Your task to perform on an android device: open app "Google Play Games" (install if not already installed) Image 0: 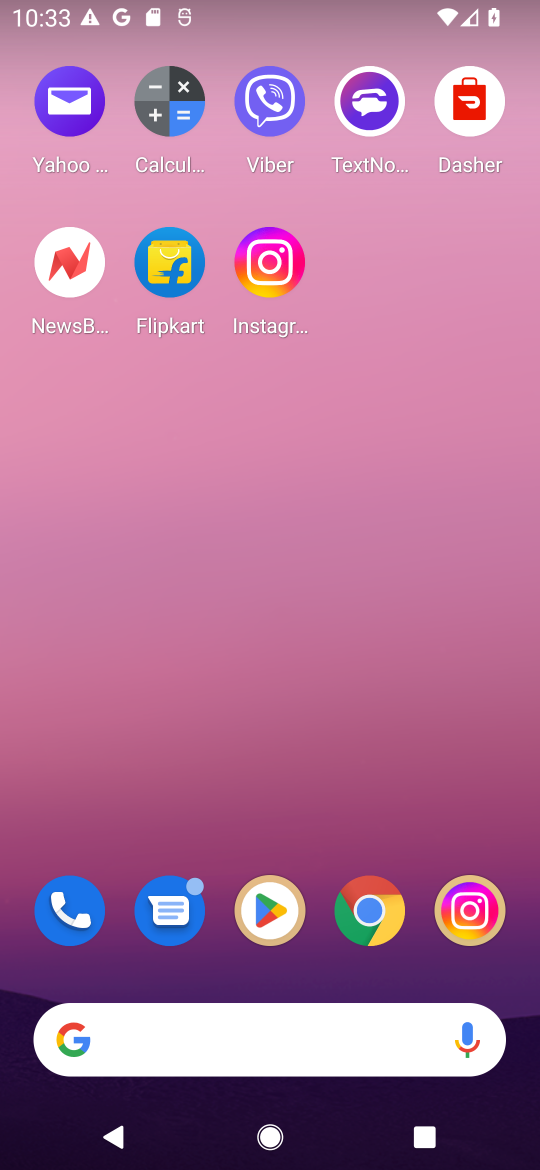
Step 0: click (262, 886)
Your task to perform on an android device: open app "Google Play Games" (install if not already installed) Image 1: 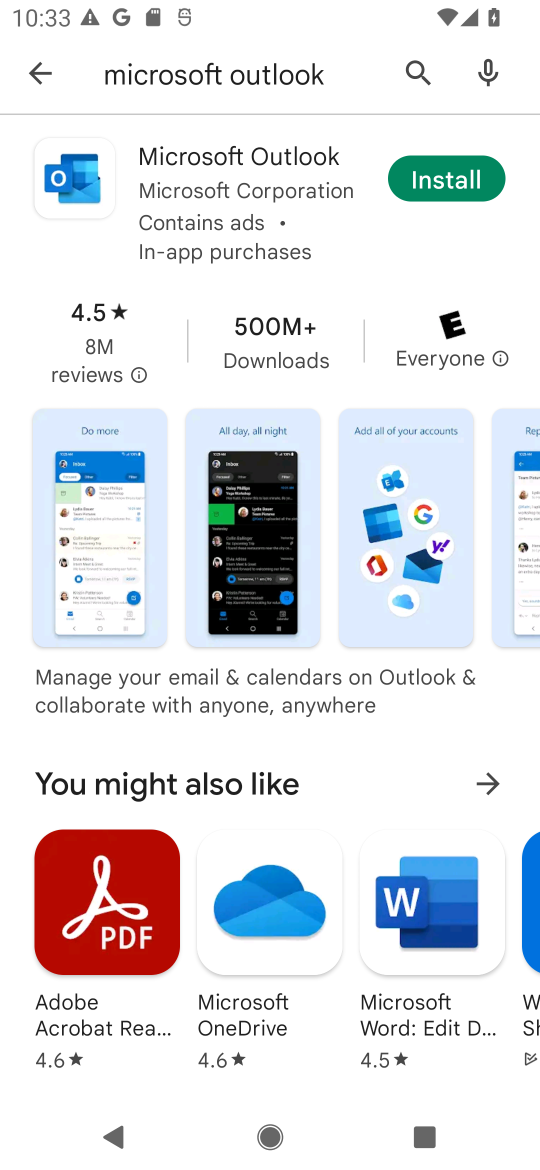
Step 1: click (431, 58)
Your task to perform on an android device: open app "Google Play Games" (install if not already installed) Image 2: 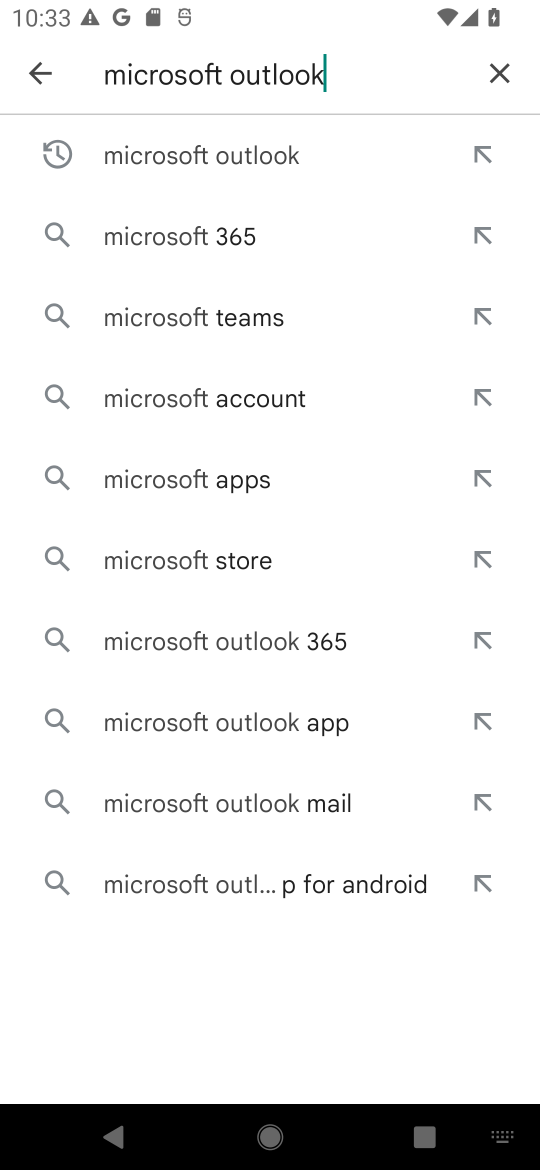
Step 2: click (512, 78)
Your task to perform on an android device: open app "Google Play Games" (install if not already installed) Image 3: 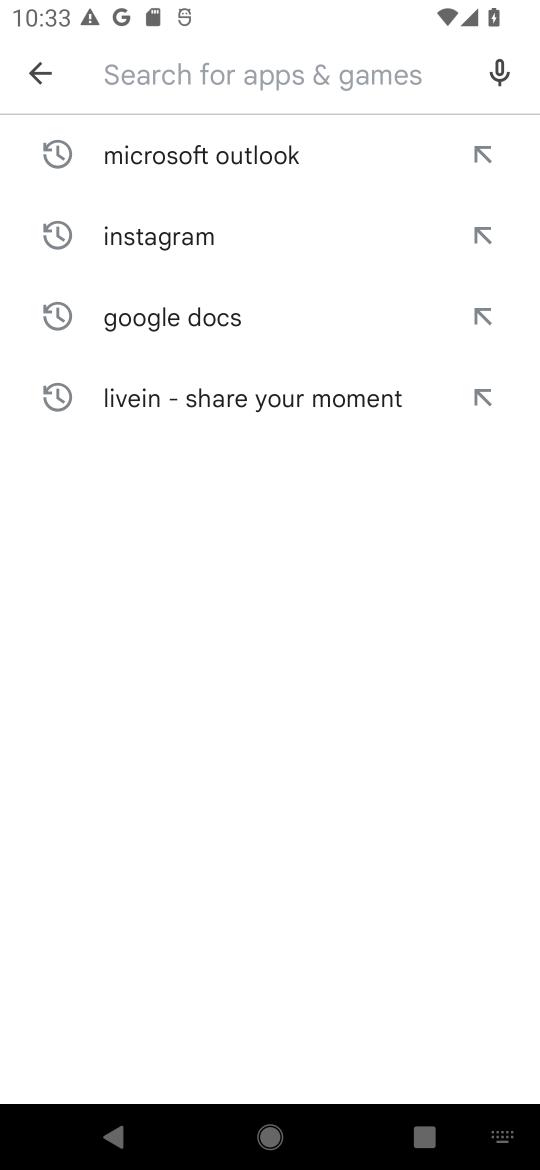
Step 3: type "Google Play Games"
Your task to perform on an android device: open app "Google Play Games" (install if not already installed) Image 4: 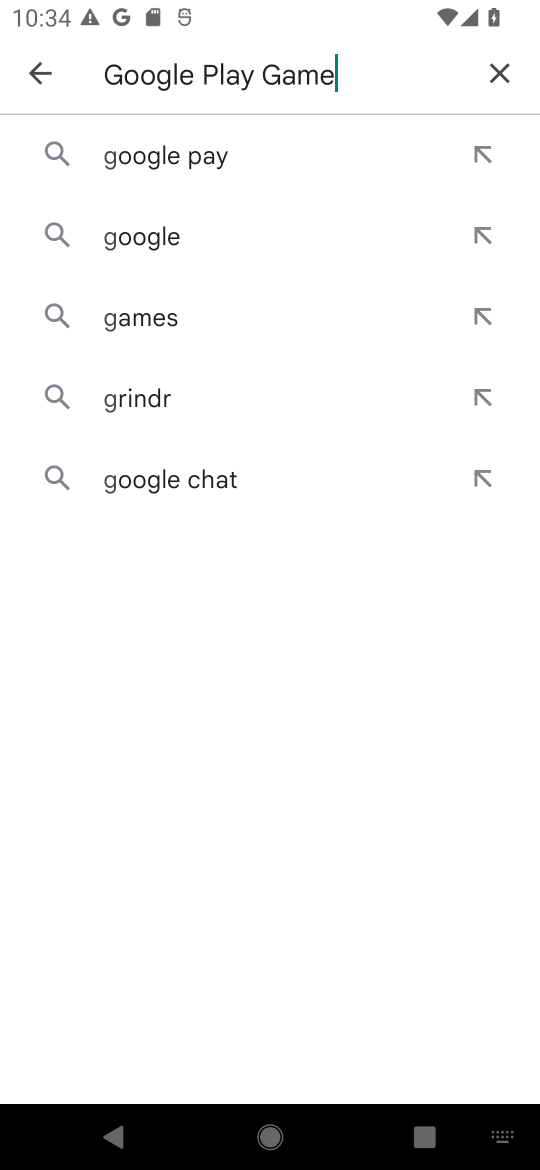
Step 4: type ""
Your task to perform on an android device: open app "Google Play Games" (install if not already installed) Image 5: 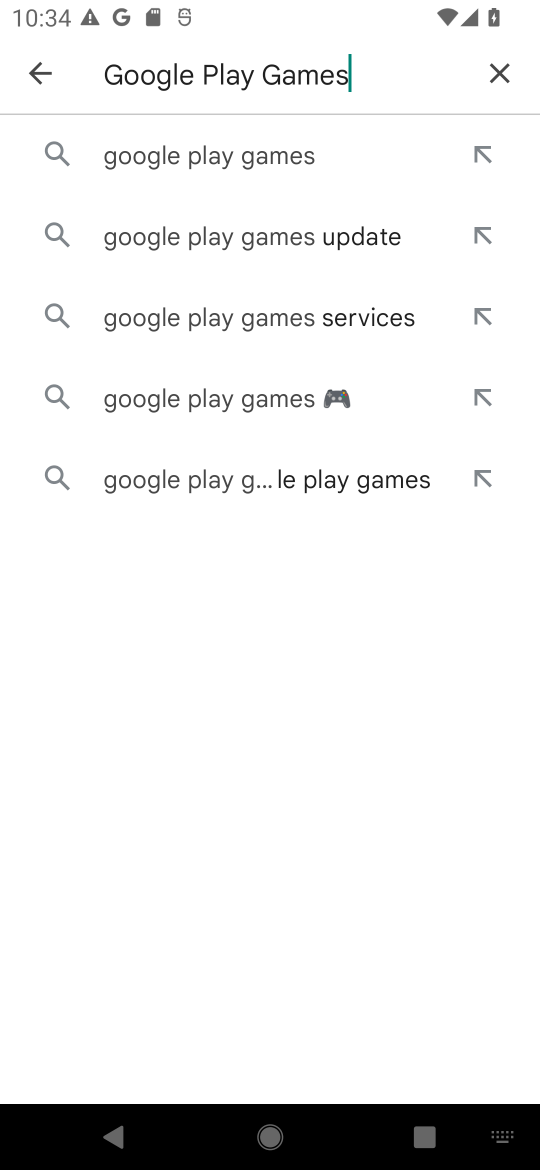
Step 5: click (170, 169)
Your task to perform on an android device: open app "Google Play Games" (install if not already installed) Image 6: 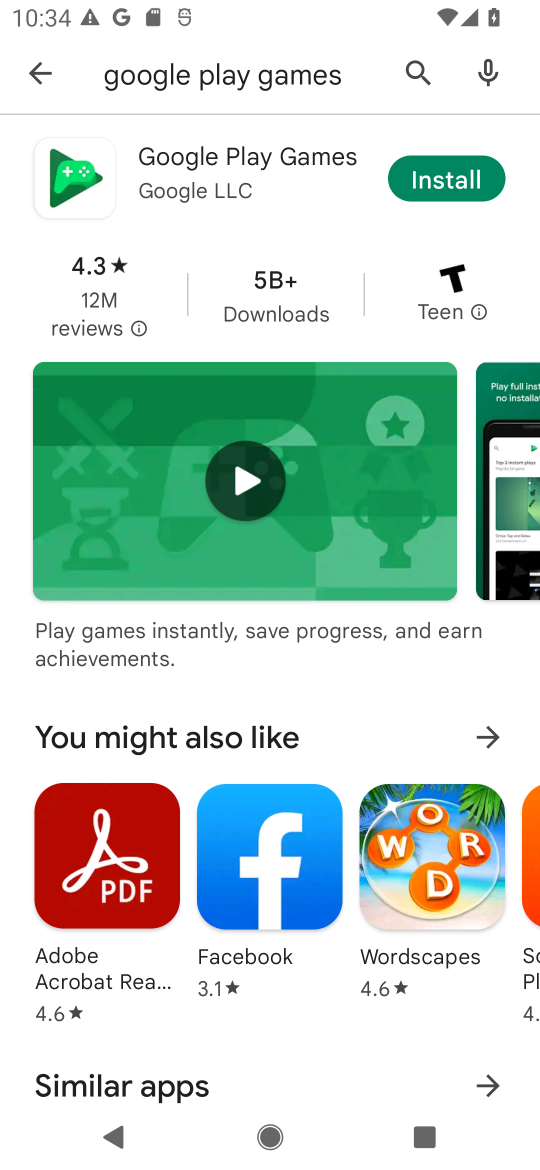
Step 6: click (445, 170)
Your task to perform on an android device: open app "Google Play Games" (install if not already installed) Image 7: 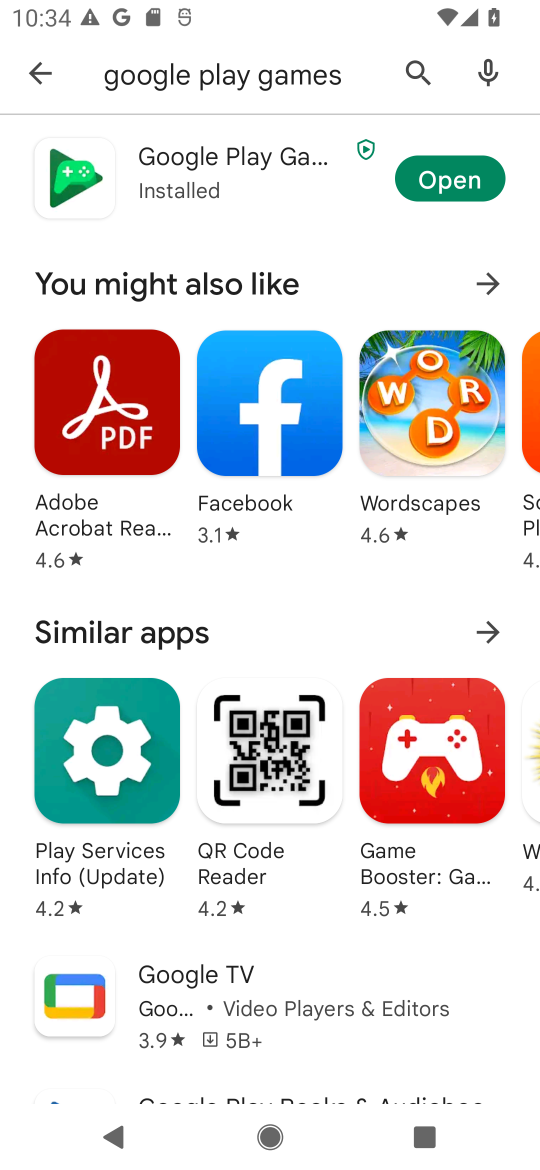
Step 7: click (441, 168)
Your task to perform on an android device: open app "Google Play Games" (install if not already installed) Image 8: 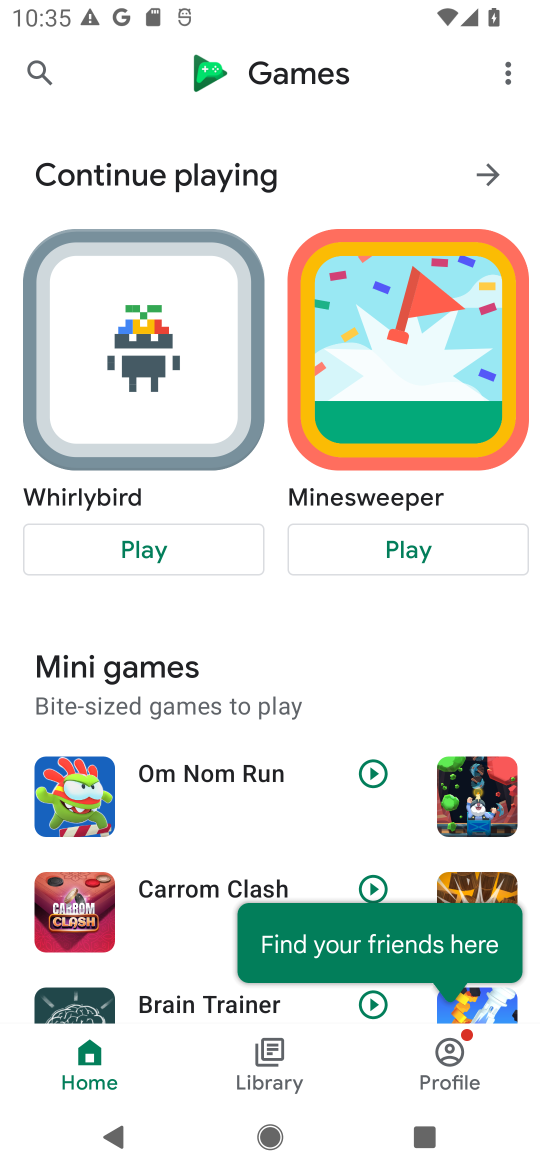
Step 8: task complete